Your task to perform on an android device: Open the phone app and click the voicemail tab. Image 0: 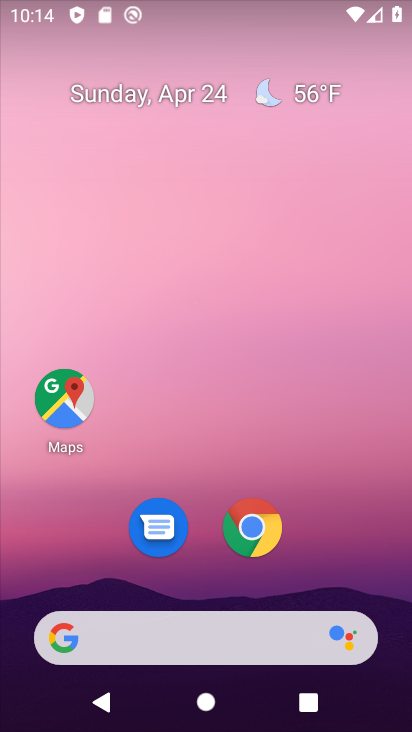
Step 0: drag from (195, 520) to (261, 11)
Your task to perform on an android device: Open the phone app and click the voicemail tab. Image 1: 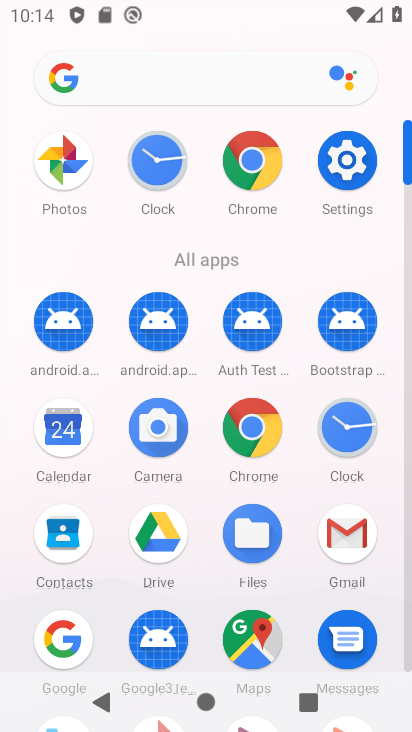
Step 1: drag from (204, 558) to (214, 165)
Your task to perform on an android device: Open the phone app and click the voicemail tab. Image 2: 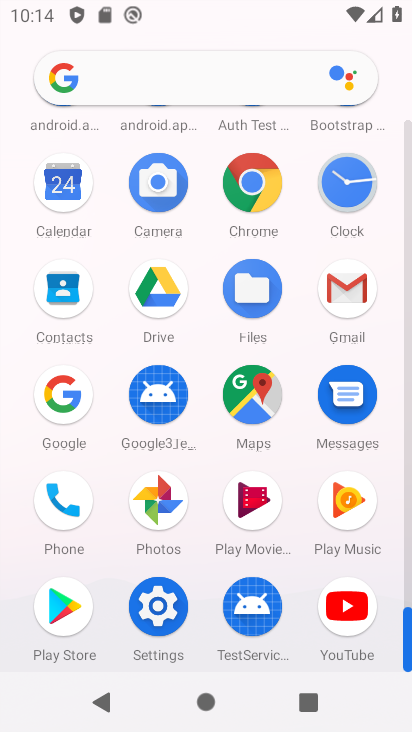
Step 2: click (62, 506)
Your task to perform on an android device: Open the phone app and click the voicemail tab. Image 3: 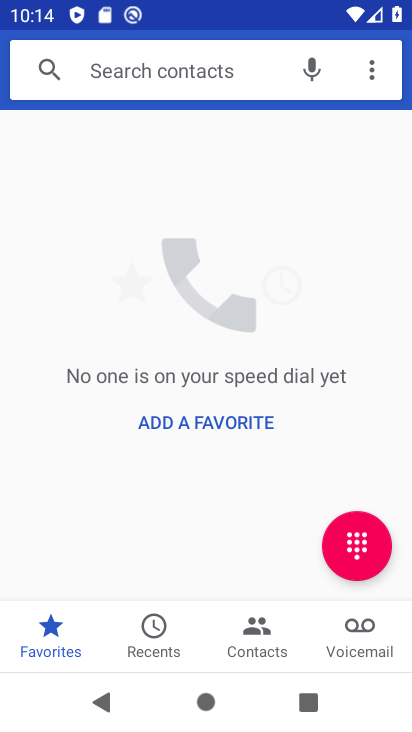
Step 3: click (371, 628)
Your task to perform on an android device: Open the phone app and click the voicemail tab. Image 4: 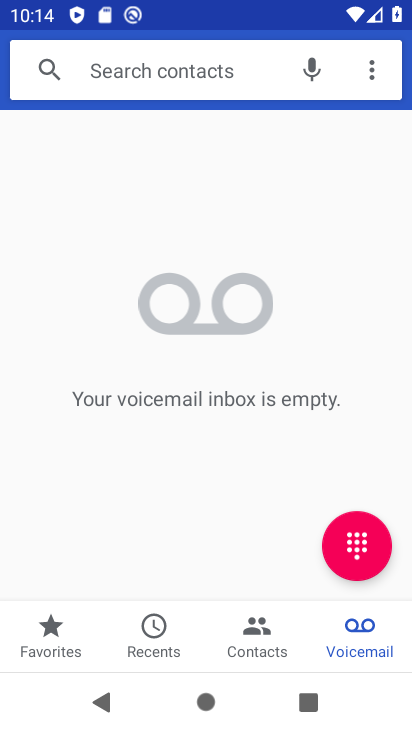
Step 4: task complete